Your task to perform on an android device: Show me popular games on the Play Store Image 0: 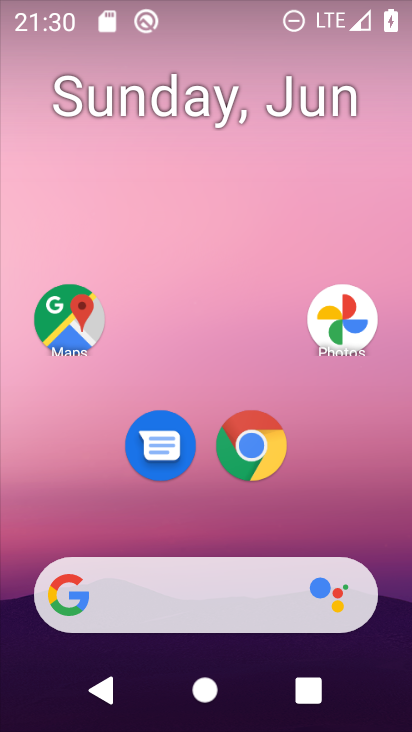
Step 0: press home button
Your task to perform on an android device: Show me popular games on the Play Store Image 1: 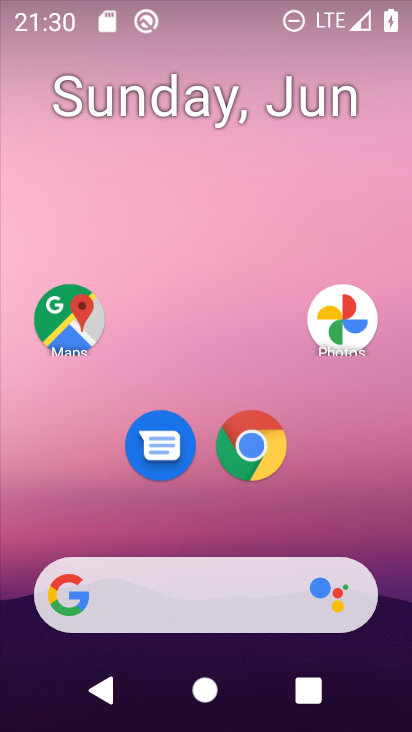
Step 1: drag from (230, 525) to (206, 128)
Your task to perform on an android device: Show me popular games on the Play Store Image 2: 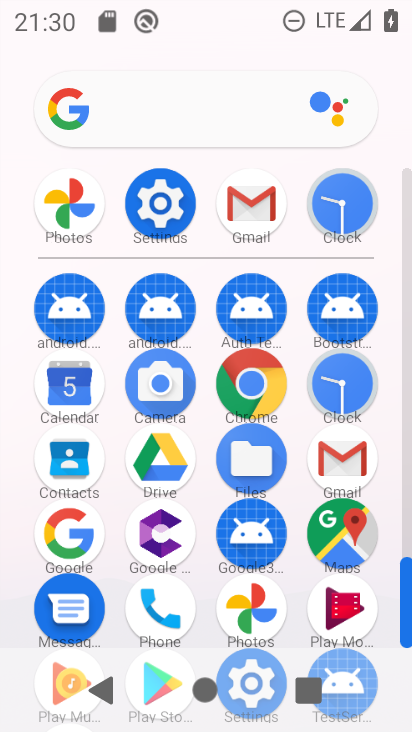
Step 2: click (157, 682)
Your task to perform on an android device: Show me popular games on the Play Store Image 3: 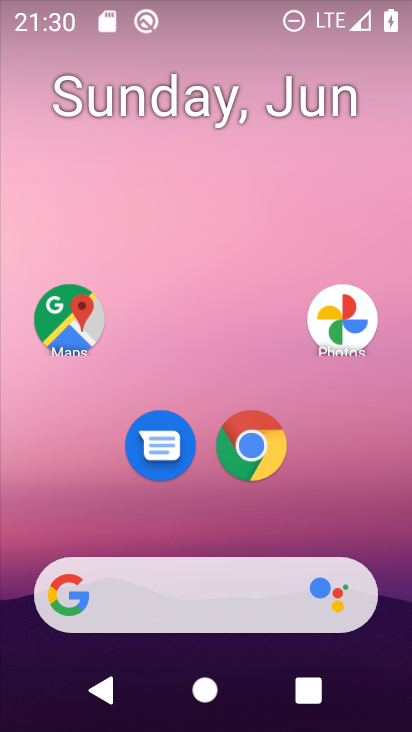
Step 3: drag from (376, 520) to (326, 30)
Your task to perform on an android device: Show me popular games on the Play Store Image 4: 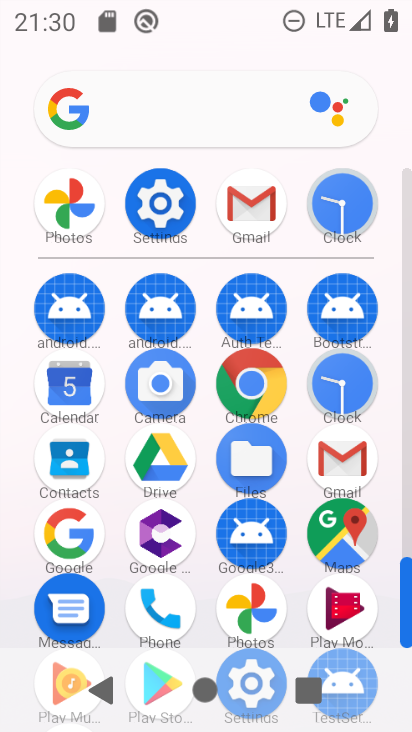
Step 4: drag from (383, 587) to (346, 197)
Your task to perform on an android device: Show me popular games on the Play Store Image 5: 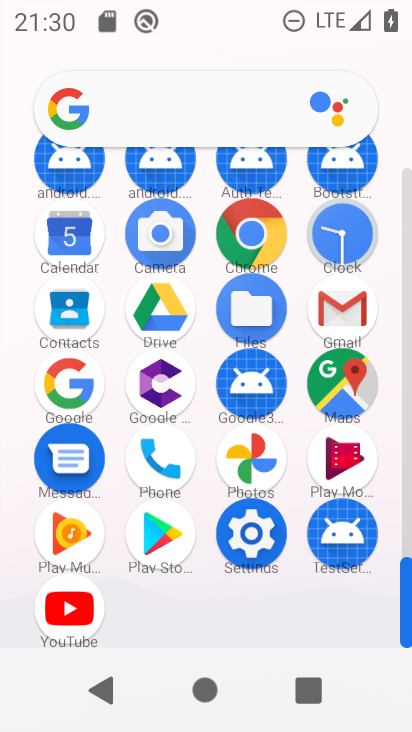
Step 5: click (156, 526)
Your task to perform on an android device: Show me popular games on the Play Store Image 6: 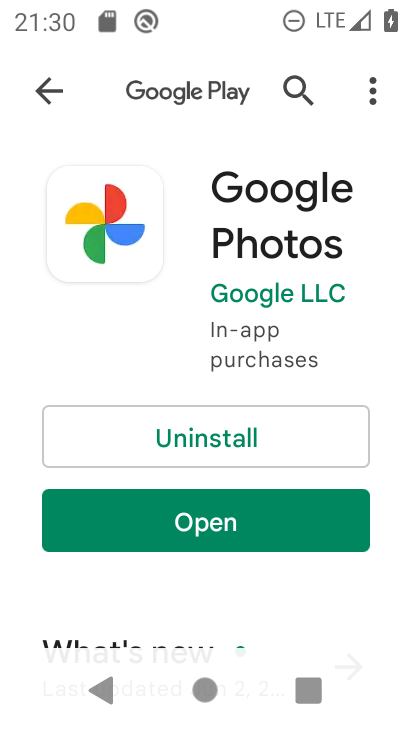
Step 6: click (48, 93)
Your task to perform on an android device: Show me popular games on the Play Store Image 7: 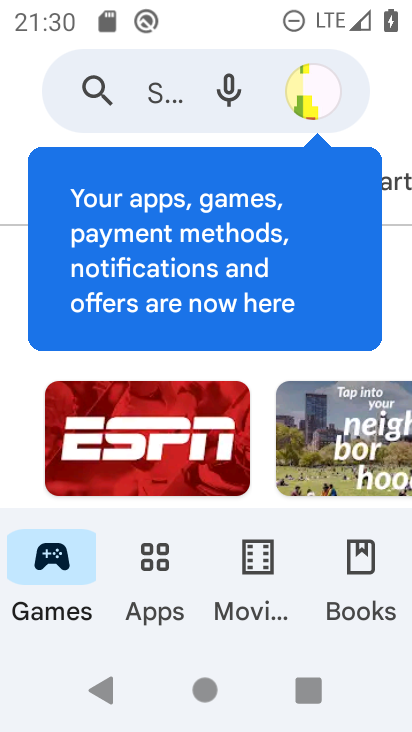
Step 7: click (54, 564)
Your task to perform on an android device: Show me popular games on the Play Store Image 8: 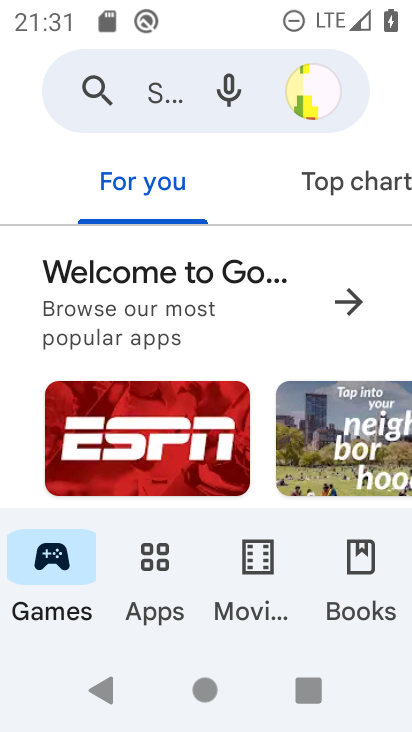
Step 8: drag from (370, 204) to (31, 199)
Your task to perform on an android device: Show me popular games on the Play Store Image 9: 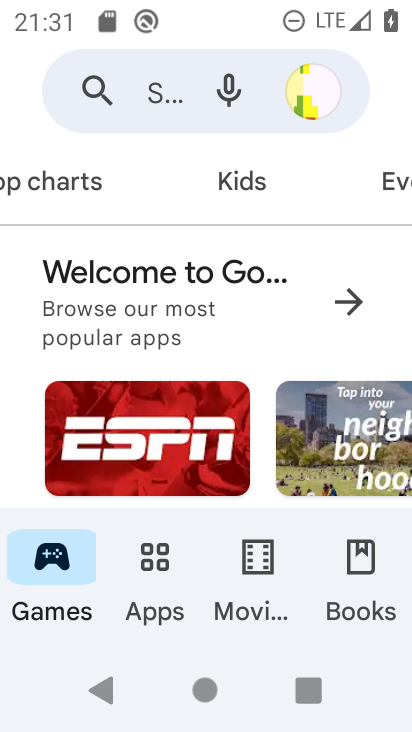
Step 9: drag from (337, 203) to (40, 201)
Your task to perform on an android device: Show me popular games on the Play Store Image 10: 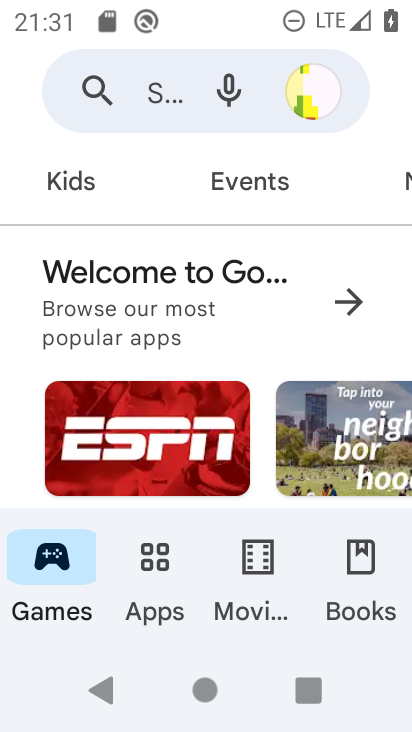
Step 10: drag from (363, 207) to (83, 186)
Your task to perform on an android device: Show me popular games on the Play Store Image 11: 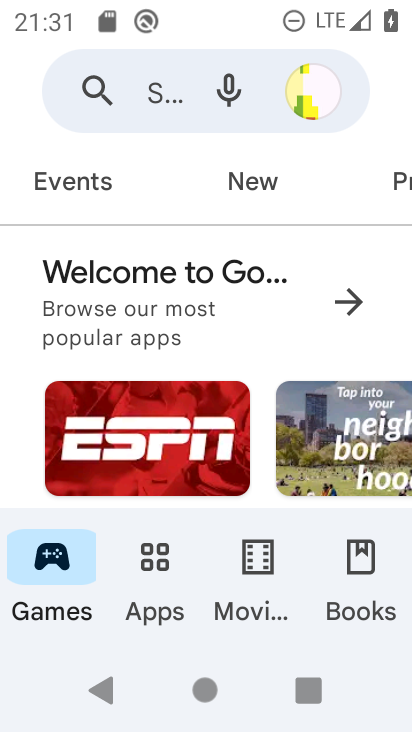
Step 11: drag from (365, 212) to (16, 205)
Your task to perform on an android device: Show me popular games on the Play Store Image 12: 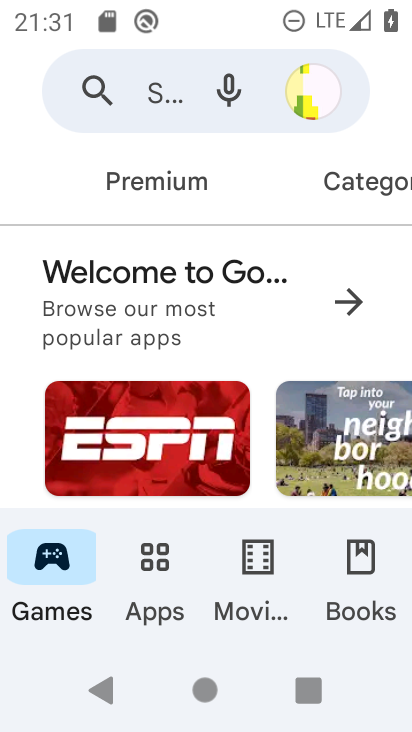
Step 12: click (370, 183)
Your task to perform on an android device: Show me popular games on the Play Store Image 13: 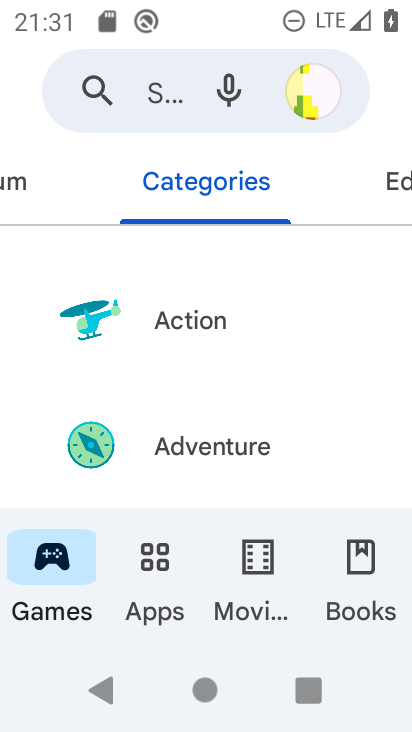
Step 13: task complete